Your task to perform on an android device: Open calendar and show me the second week of next month Image 0: 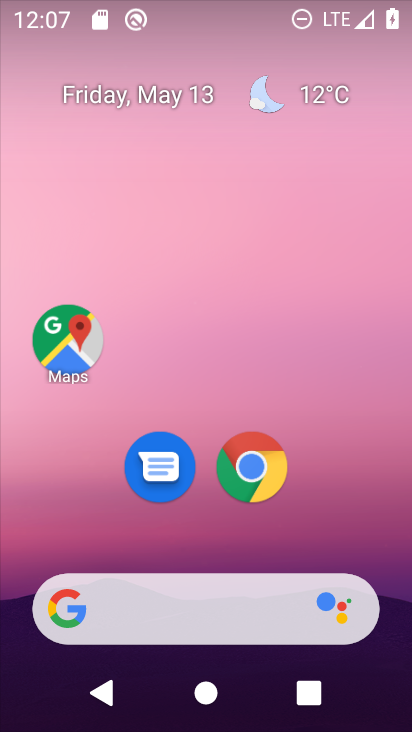
Step 0: drag from (346, 552) to (272, 39)
Your task to perform on an android device: Open calendar and show me the second week of next month Image 1: 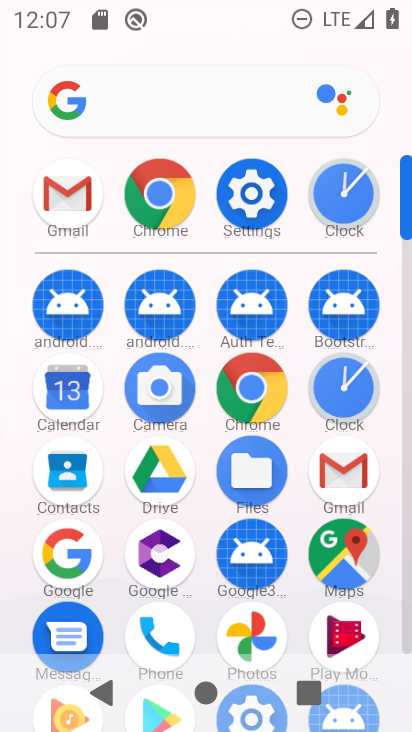
Step 1: drag from (10, 561) to (20, 263)
Your task to perform on an android device: Open calendar and show me the second week of next month Image 2: 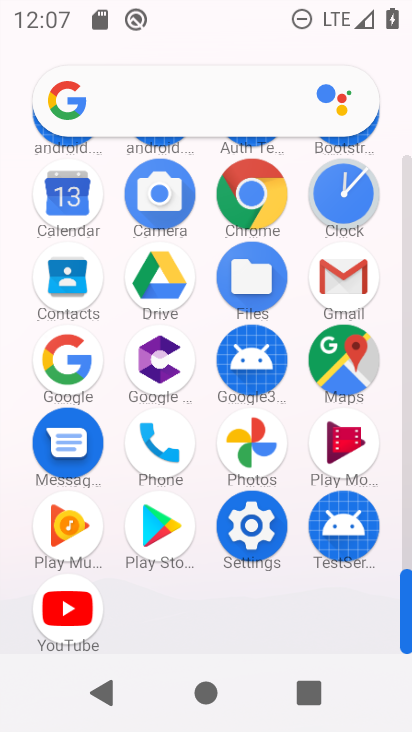
Step 2: drag from (23, 550) to (13, 239)
Your task to perform on an android device: Open calendar and show me the second week of next month Image 3: 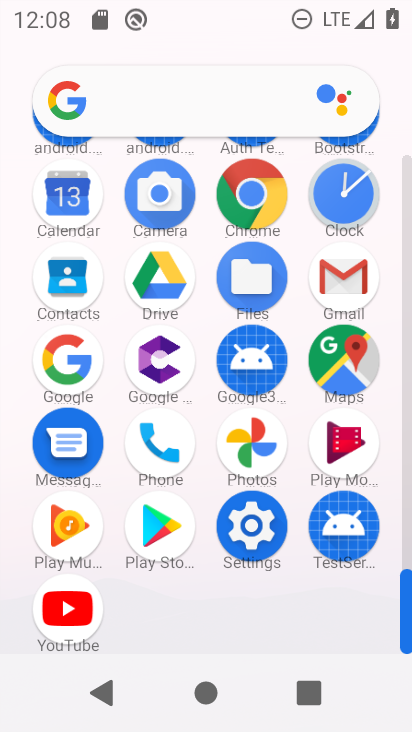
Step 3: click (61, 194)
Your task to perform on an android device: Open calendar and show me the second week of next month Image 4: 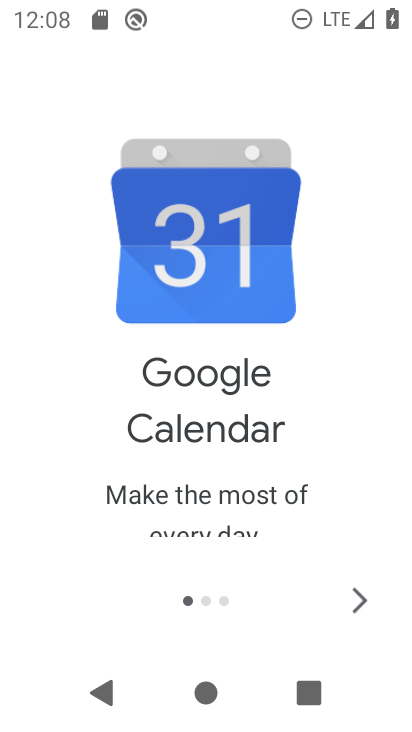
Step 4: click (357, 592)
Your task to perform on an android device: Open calendar and show me the second week of next month Image 5: 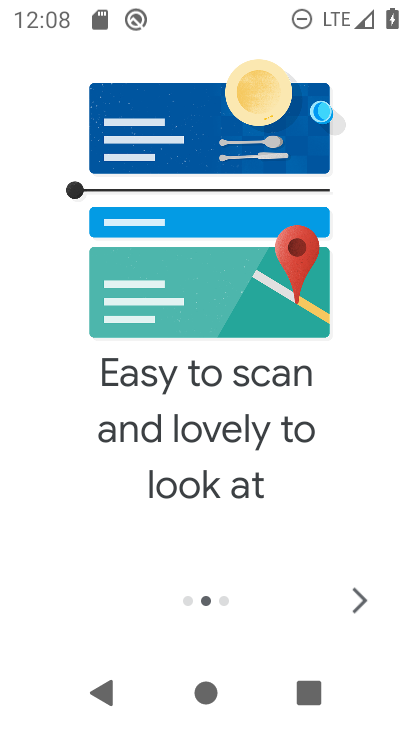
Step 5: click (357, 592)
Your task to perform on an android device: Open calendar and show me the second week of next month Image 6: 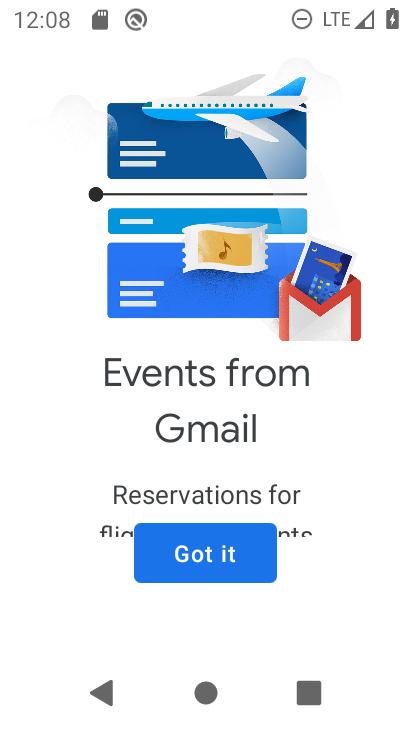
Step 6: click (357, 592)
Your task to perform on an android device: Open calendar and show me the second week of next month Image 7: 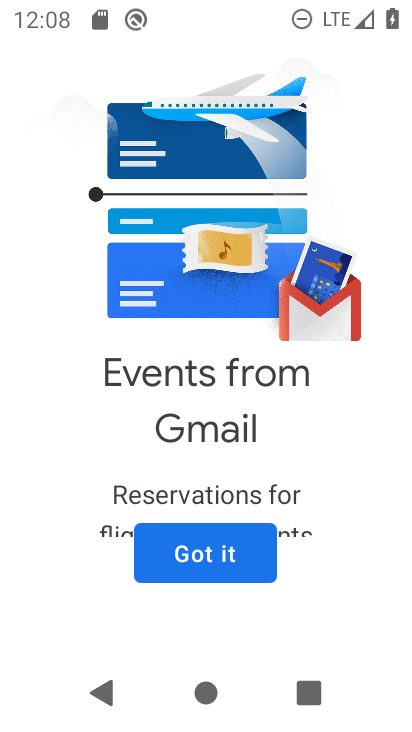
Step 7: click (241, 555)
Your task to perform on an android device: Open calendar and show me the second week of next month Image 8: 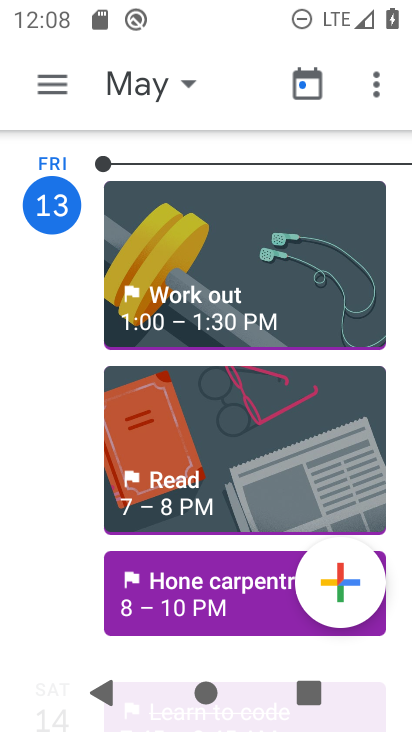
Step 8: click (64, 88)
Your task to perform on an android device: Open calendar and show me the second week of next month Image 9: 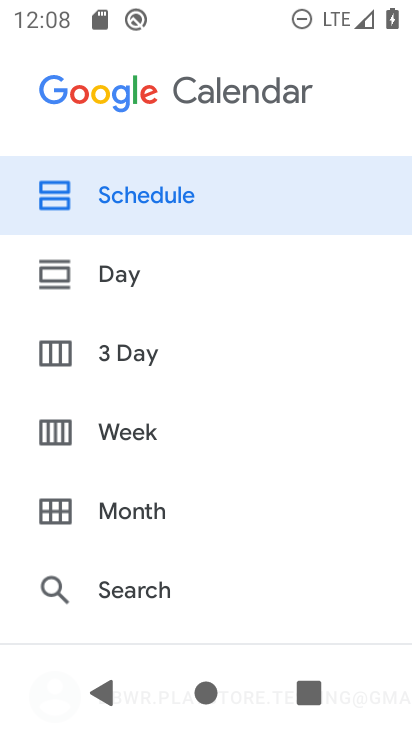
Step 9: click (146, 424)
Your task to perform on an android device: Open calendar and show me the second week of next month Image 10: 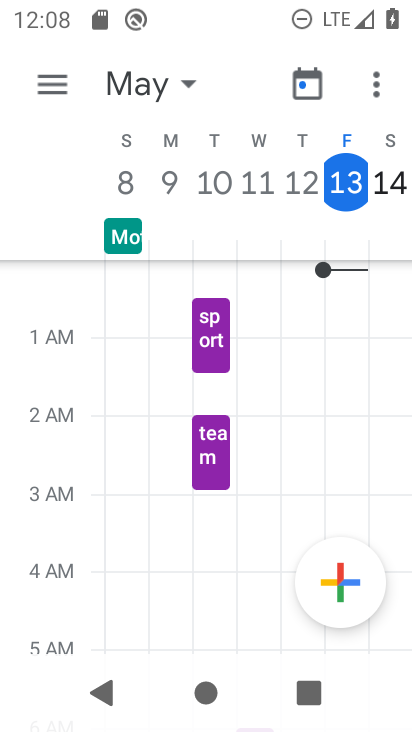
Step 10: click (162, 66)
Your task to perform on an android device: Open calendar and show me the second week of next month Image 11: 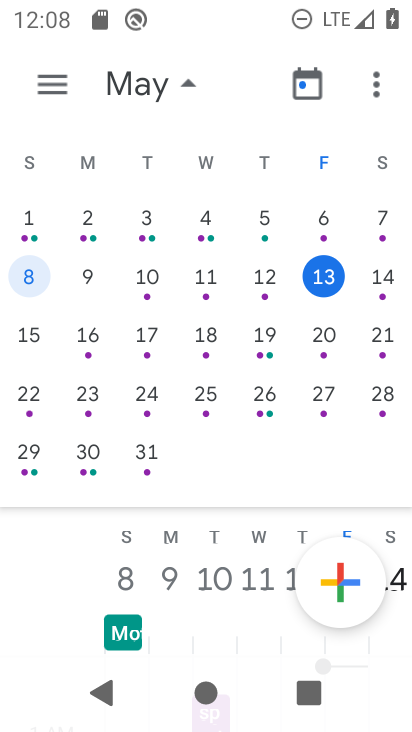
Step 11: drag from (353, 339) to (0, 416)
Your task to perform on an android device: Open calendar and show me the second week of next month Image 12: 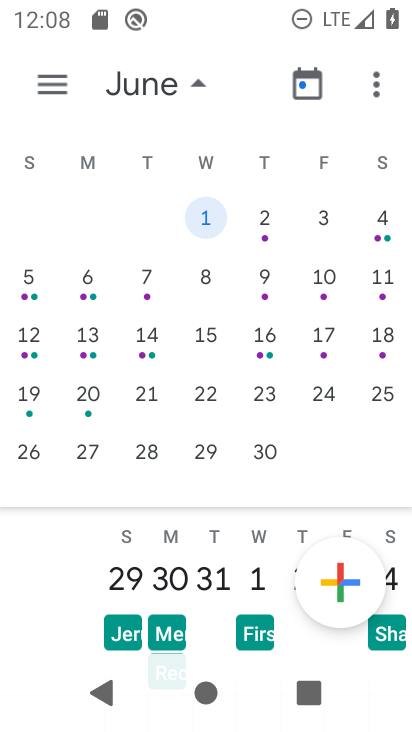
Step 12: click (19, 283)
Your task to perform on an android device: Open calendar and show me the second week of next month Image 13: 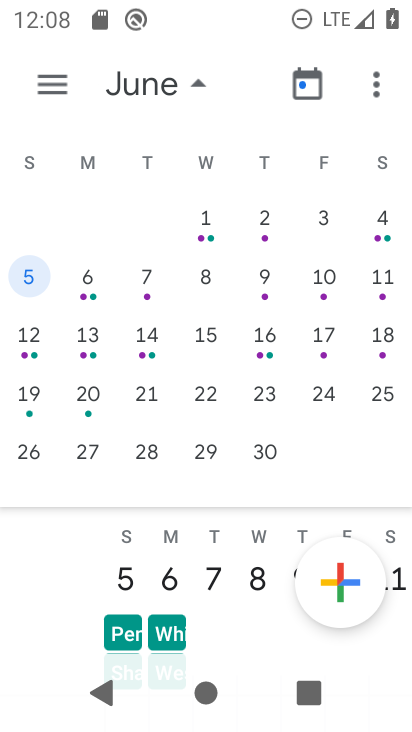
Step 13: click (45, 93)
Your task to perform on an android device: Open calendar and show me the second week of next month Image 14: 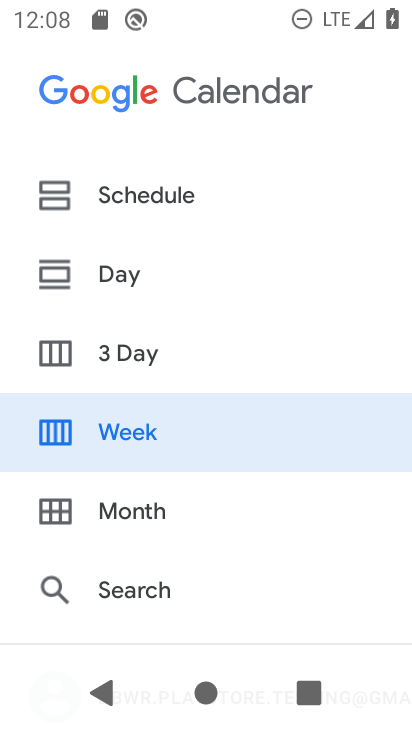
Step 14: click (173, 400)
Your task to perform on an android device: Open calendar and show me the second week of next month Image 15: 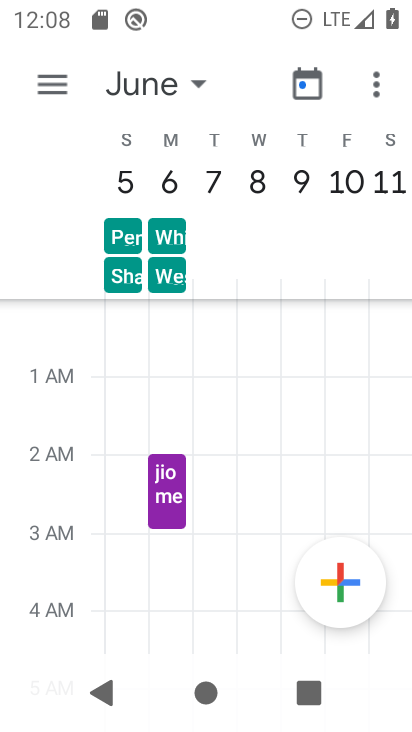
Step 15: task complete